Your task to perform on an android device: turn on wifi Image 0: 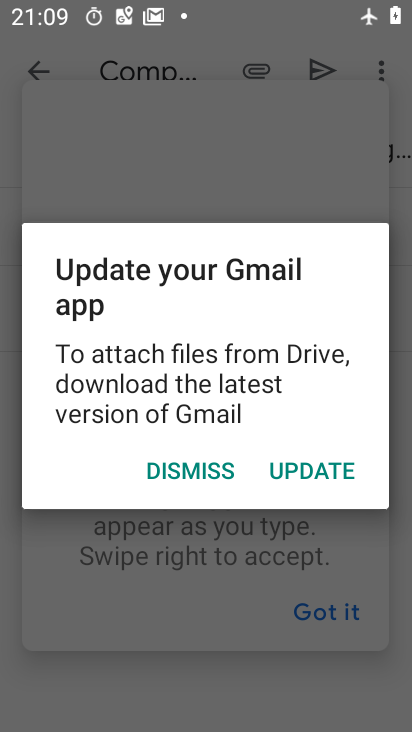
Step 0: press home button
Your task to perform on an android device: turn on wifi Image 1: 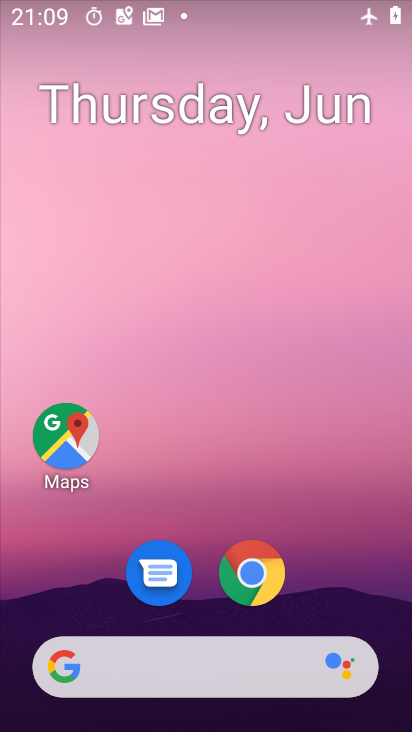
Step 1: drag from (198, 554) to (234, 282)
Your task to perform on an android device: turn on wifi Image 2: 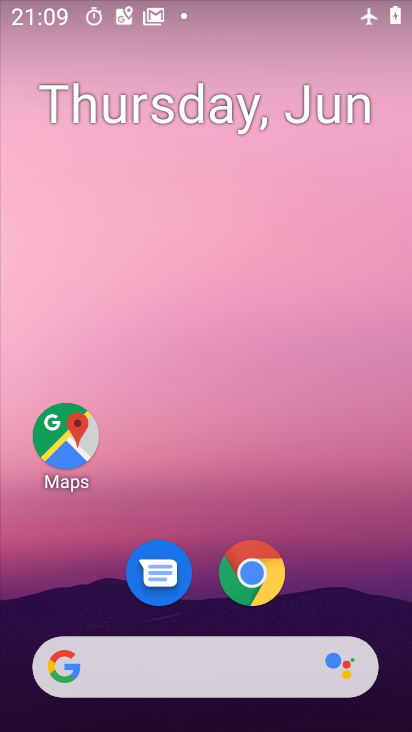
Step 2: drag from (204, 560) to (281, 263)
Your task to perform on an android device: turn on wifi Image 3: 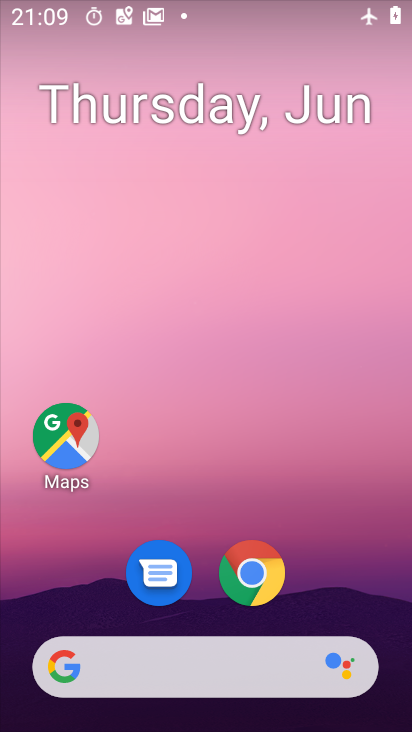
Step 3: drag from (196, 643) to (293, 241)
Your task to perform on an android device: turn on wifi Image 4: 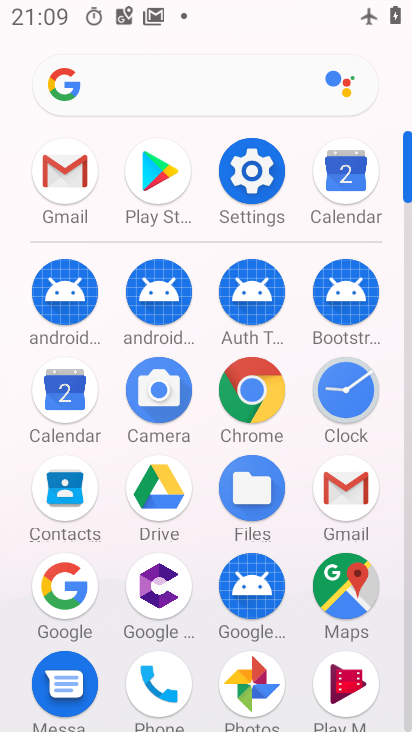
Step 4: click (240, 176)
Your task to perform on an android device: turn on wifi Image 5: 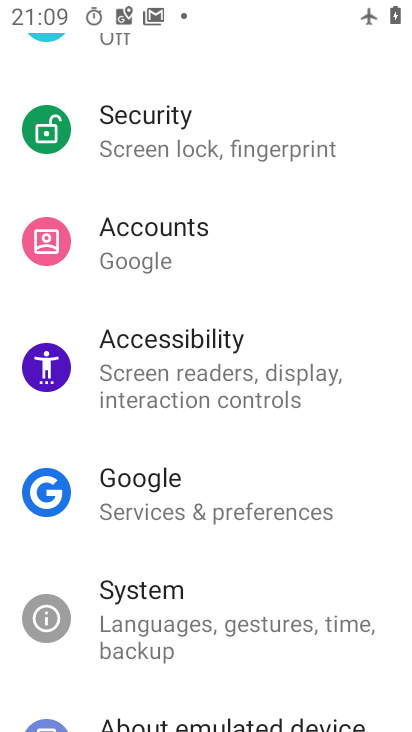
Step 5: drag from (189, 141) to (218, 582)
Your task to perform on an android device: turn on wifi Image 6: 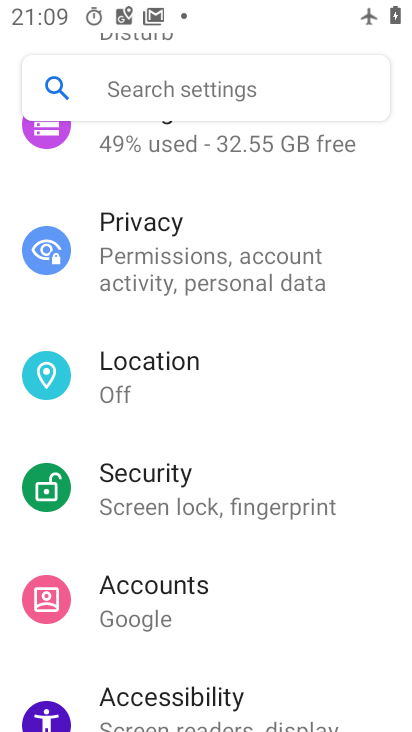
Step 6: drag from (198, 215) to (192, 626)
Your task to perform on an android device: turn on wifi Image 7: 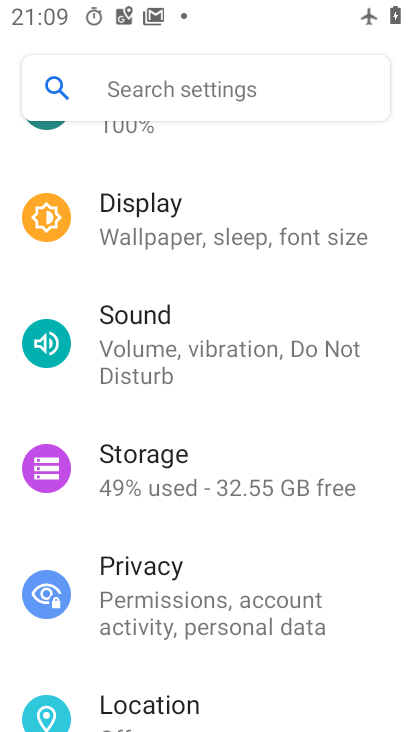
Step 7: drag from (178, 251) to (186, 606)
Your task to perform on an android device: turn on wifi Image 8: 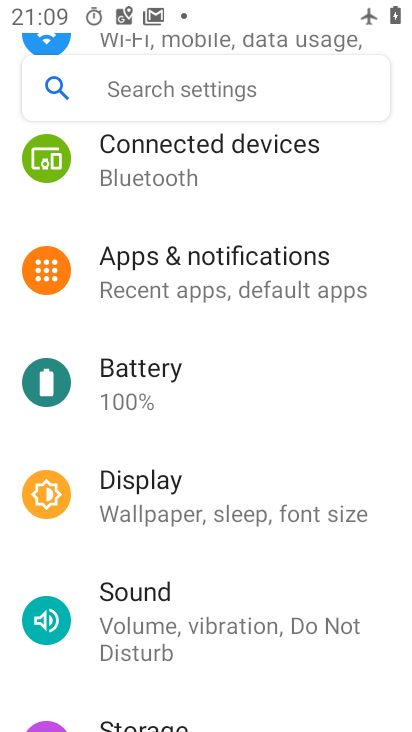
Step 8: drag from (158, 190) to (195, 591)
Your task to perform on an android device: turn on wifi Image 9: 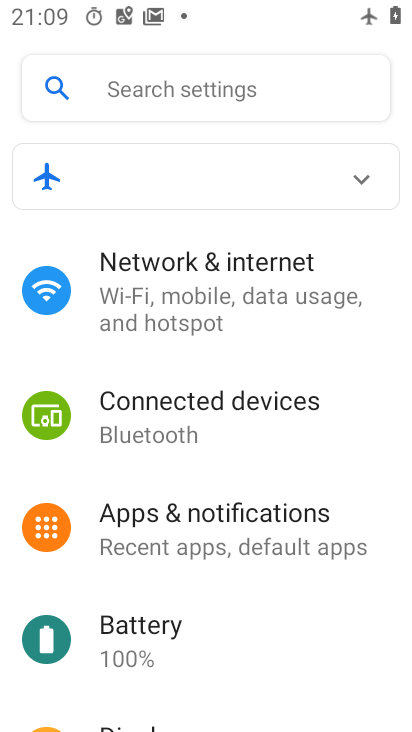
Step 9: click (156, 264)
Your task to perform on an android device: turn on wifi Image 10: 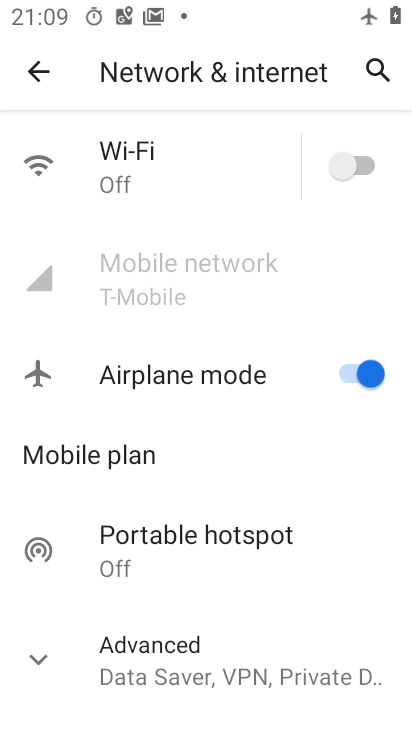
Step 10: click (356, 160)
Your task to perform on an android device: turn on wifi Image 11: 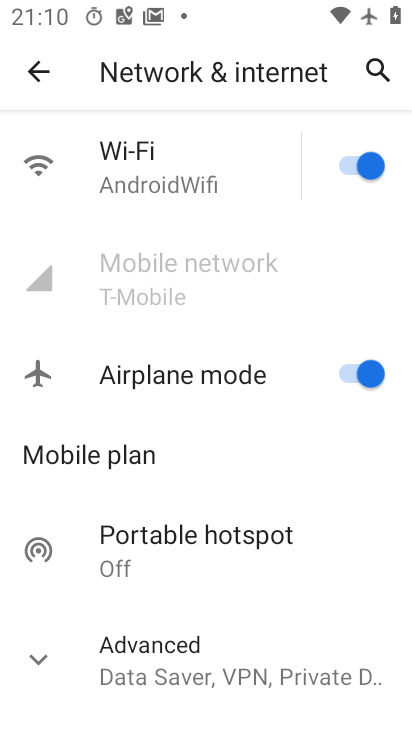
Step 11: task complete